Your task to perform on an android device: open a bookmark in the chrome app Image 0: 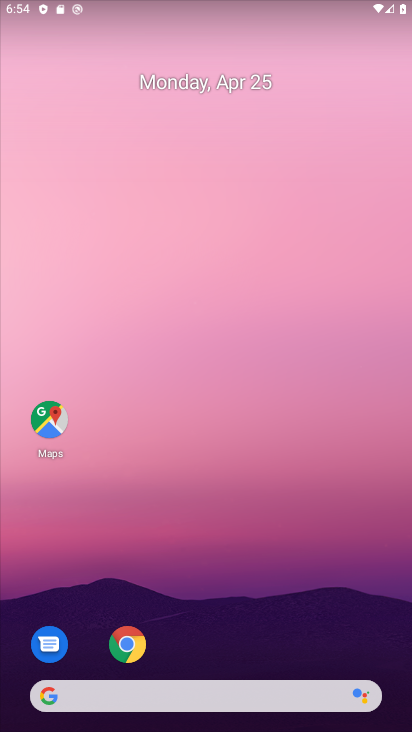
Step 0: click (131, 648)
Your task to perform on an android device: open a bookmark in the chrome app Image 1: 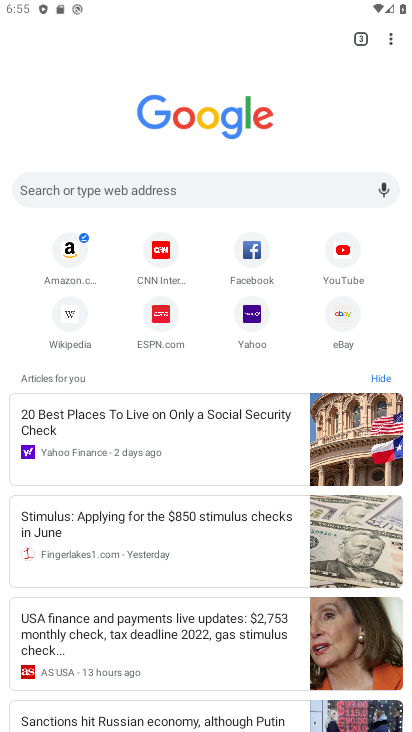
Step 1: click (392, 40)
Your task to perform on an android device: open a bookmark in the chrome app Image 2: 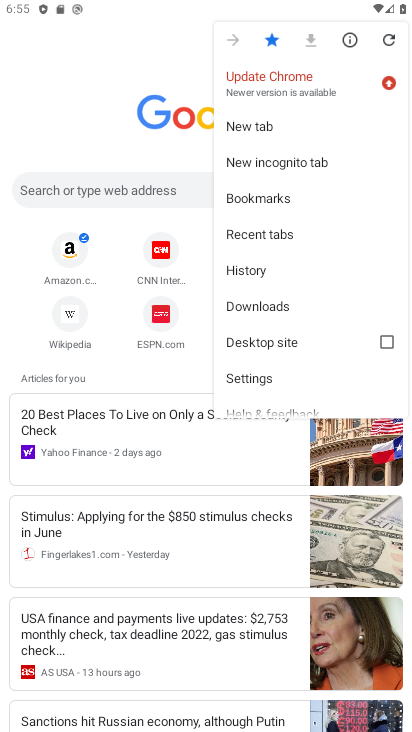
Step 2: click (289, 374)
Your task to perform on an android device: open a bookmark in the chrome app Image 3: 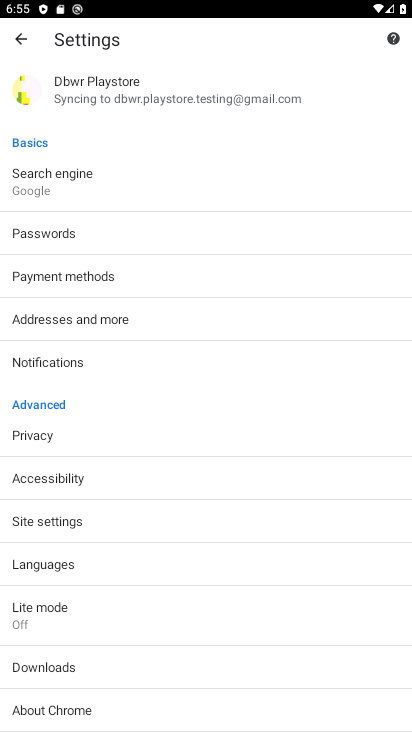
Step 3: click (24, 32)
Your task to perform on an android device: open a bookmark in the chrome app Image 4: 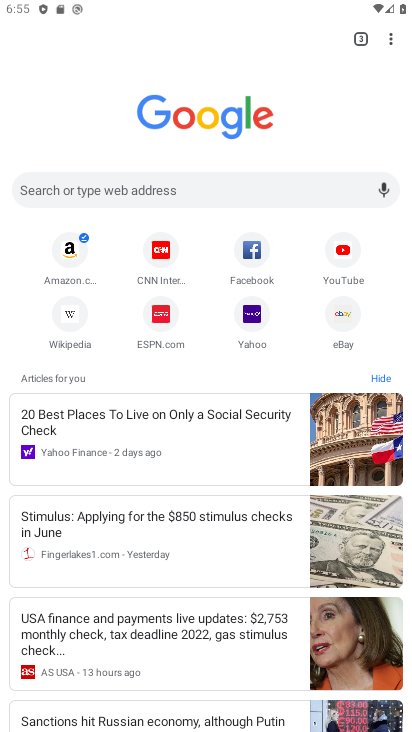
Step 4: click (393, 40)
Your task to perform on an android device: open a bookmark in the chrome app Image 5: 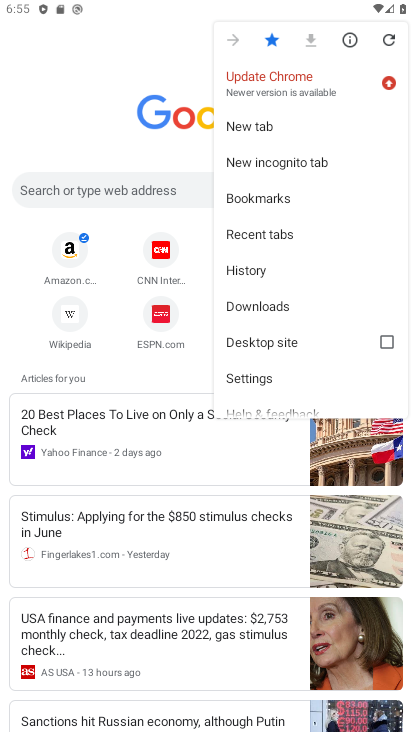
Step 5: click (267, 202)
Your task to perform on an android device: open a bookmark in the chrome app Image 6: 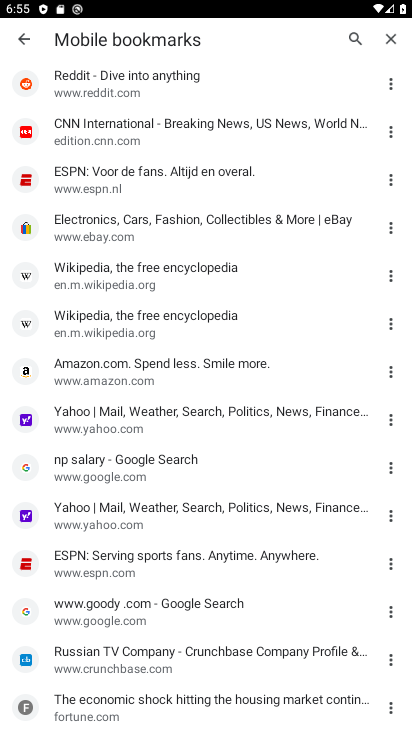
Step 6: click (142, 363)
Your task to perform on an android device: open a bookmark in the chrome app Image 7: 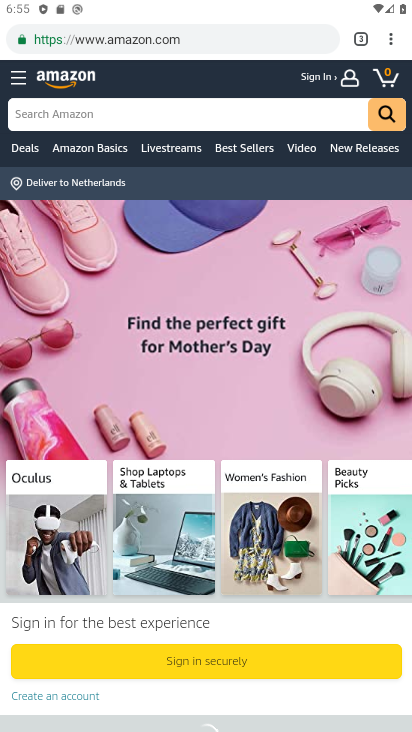
Step 7: task complete